Your task to perform on an android device: choose inbox layout in the gmail app Image 0: 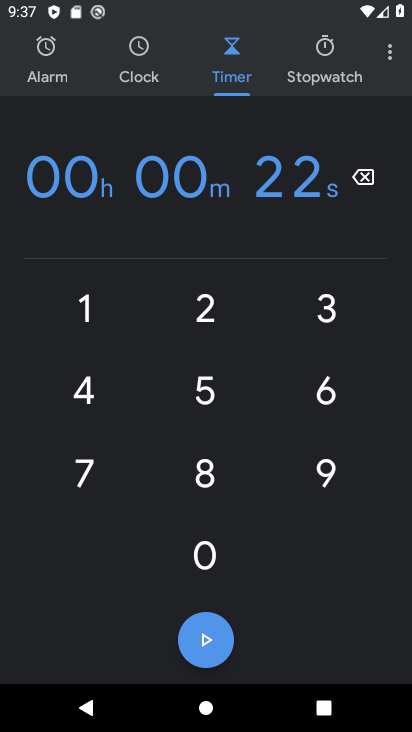
Step 0: press home button
Your task to perform on an android device: choose inbox layout in the gmail app Image 1: 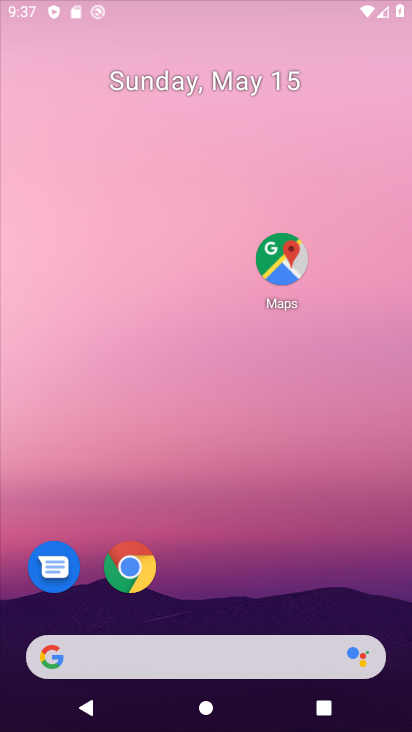
Step 1: drag from (209, 551) to (225, 201)
Your task to perform on an android device: choose inbox layout in the gmail app Image 2: 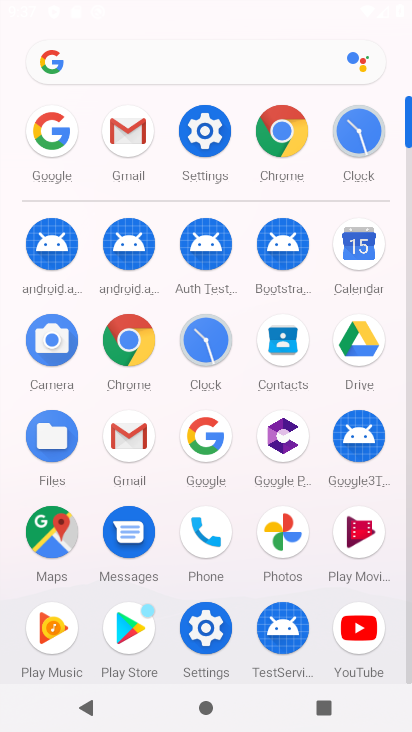
Step 2: click (139, 130)
Your task to perform on an android device: choose inbox layout in the gmail app Image 3: 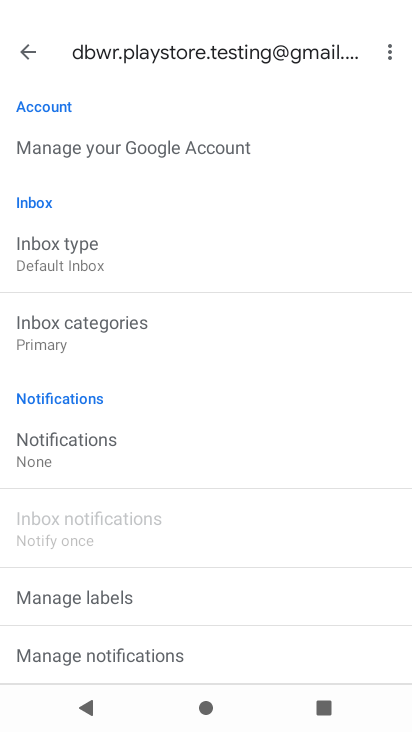
Step 3: click (95, 256)
Your task to perform on an android device: choose inbox layout in the gmail app Image 4: 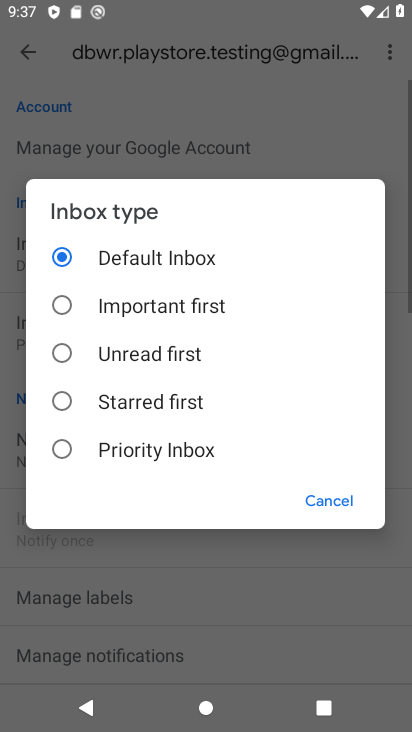
Step 4: click (65, 300)
Your task to perform on an android device: choose inbox layout in the gmail app Image 5: 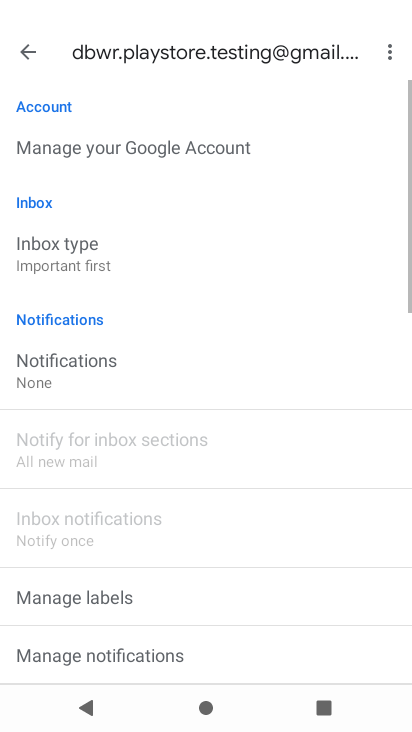
Step 5: task complete